Your task to perform on an android device: Go to Android settings Image 0: 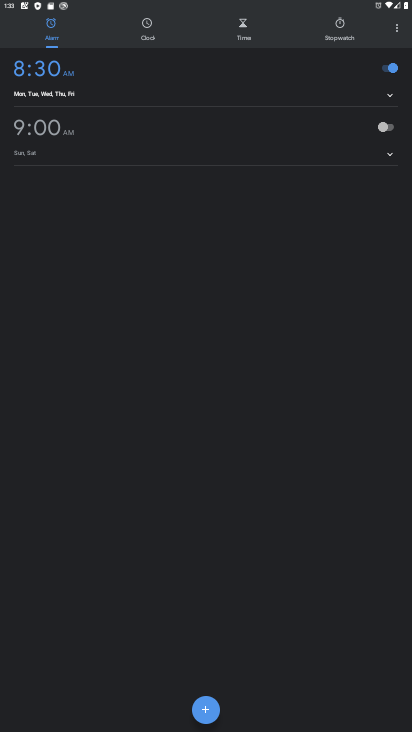
Step 0: press home button
Your task to perform on an android device: Go to Android settings Image 1: 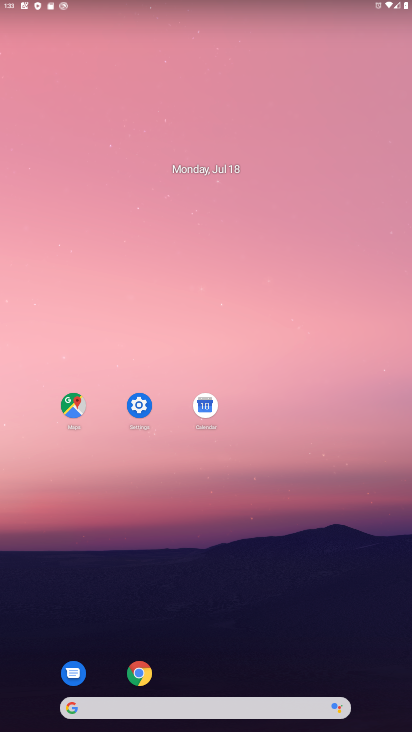
Step 1: click (134, 401)
Your task to perform on an android device: Go to Android settings Image 2: 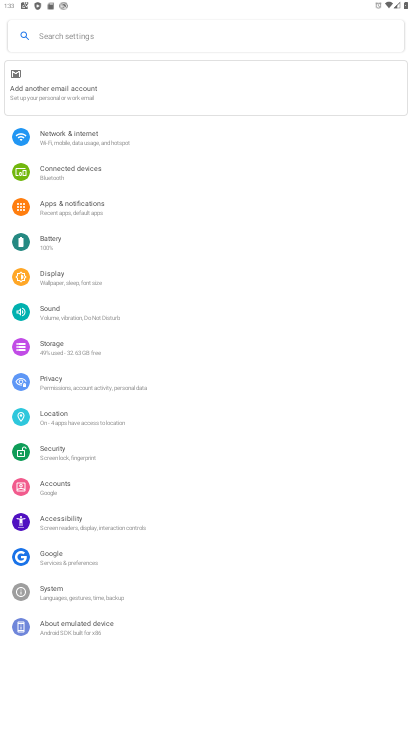
Step 2: task complete